Your task to perform on an android device: turn on showing notifications on the lock screen Image 0: 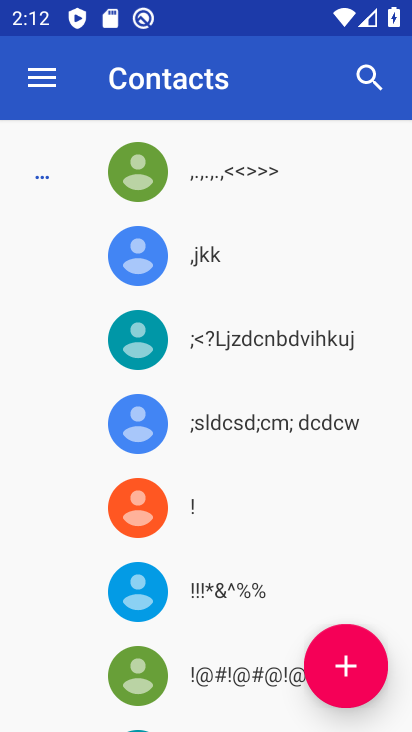
Step 0: task complete